Your task to perform on an android device: stop showing notifications on the lock screen Image 0: 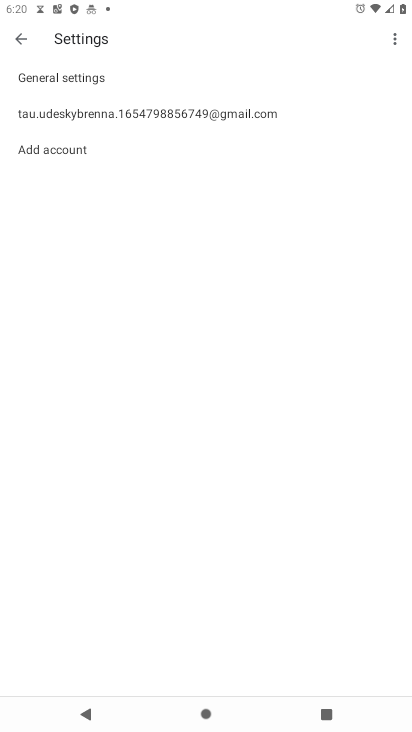
Step 0: press home button
Your task to perform on an android device: stop showing notifications on the lock screen Image 1: 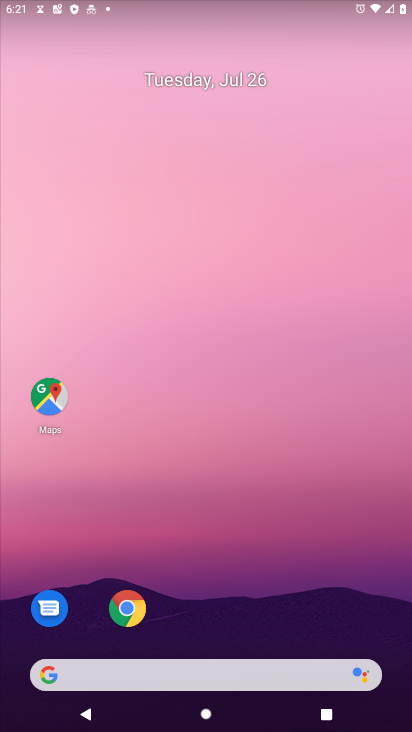
Step 1: drag from (197, 630) to (149, 356)
Your task to perform on an android device: stop showing notifications on the lock screen Image 2: 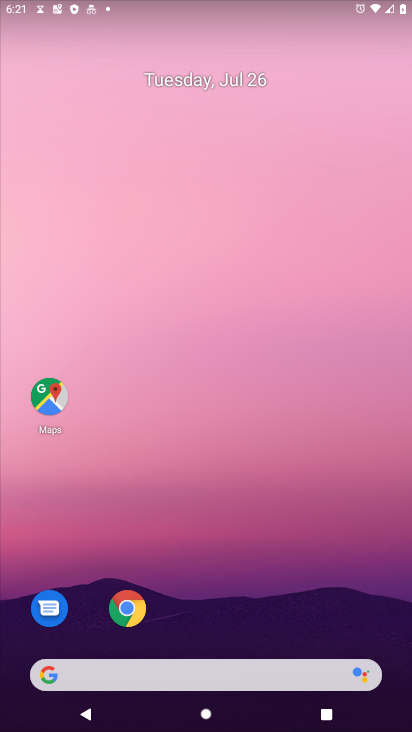
Step 2: click (301, 598)
Your task to perform on an android device: stop showing notifications on the lock screen Image 3: 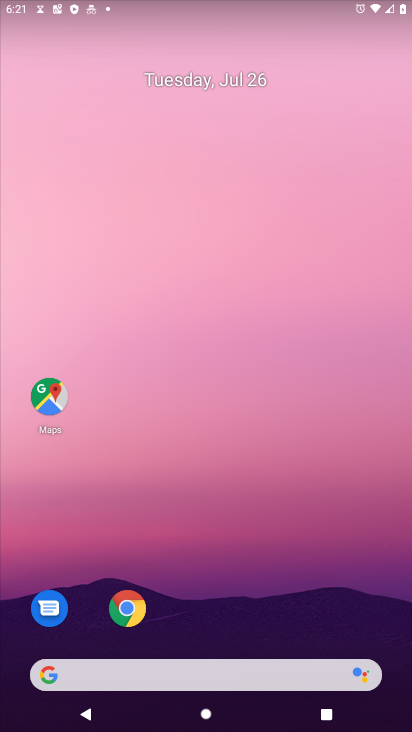
Step 3: drag from (286, 629) to (349, 134)
Your task to perform on an android device: stop showing notifications on the lock screen Image 4: 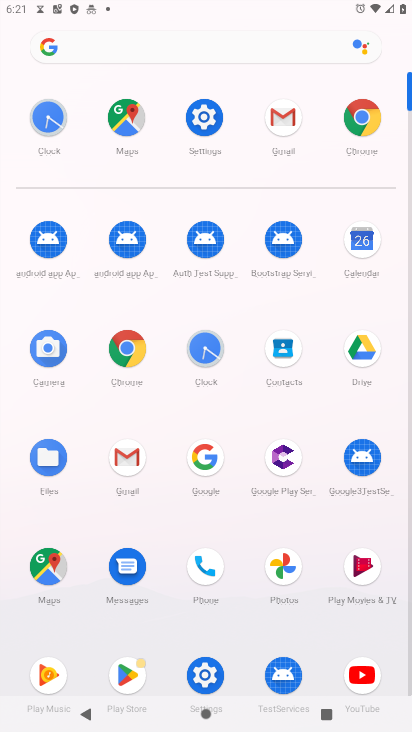
Step 4: click (224, 128)
Your task to perform on an android device: stop showing notifications on the lock screen Image 5: 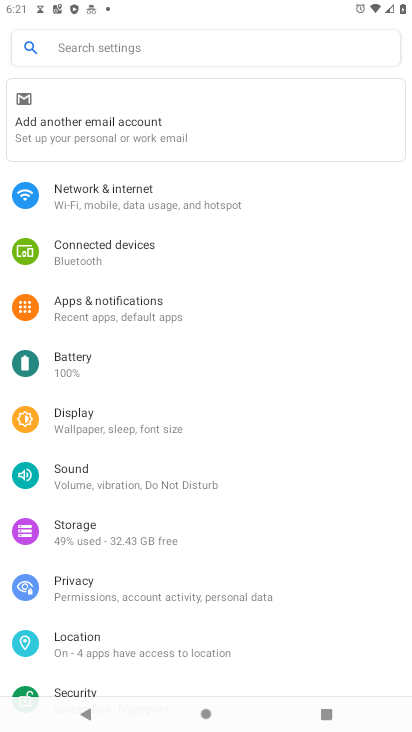
Step 5: click (89, 305)
Your task to perform on an android device: stop showing notifications on the lock screen Image 6: 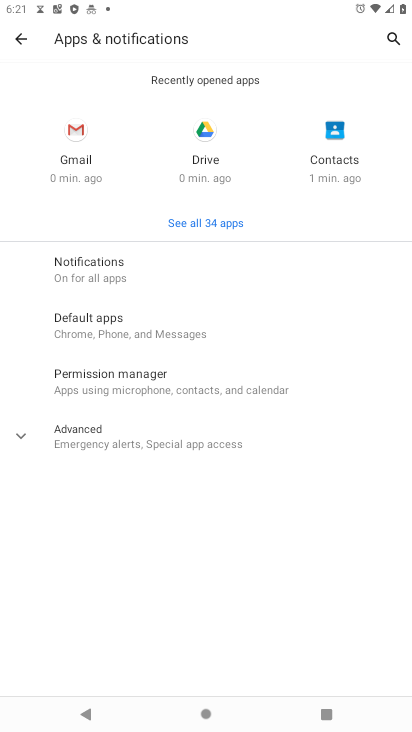
Step 6: click (94, 274)
Your task to perform on an android device: stop showing notifications on the lock screen Image 7: 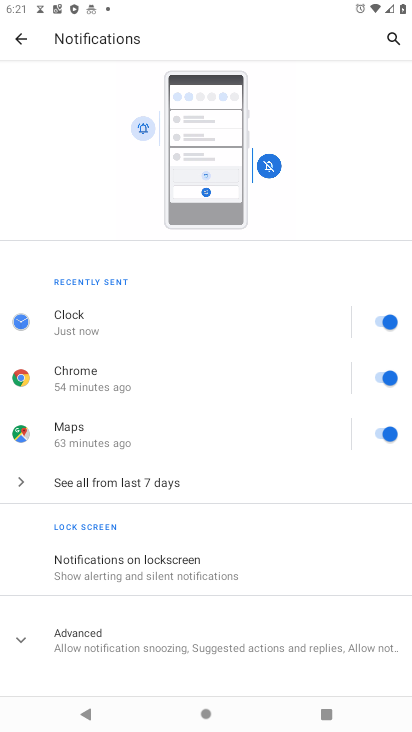
Step 7: click (109, 574)
Your task to perform on an android device: stop showing notifications on the lock screen Image 8: 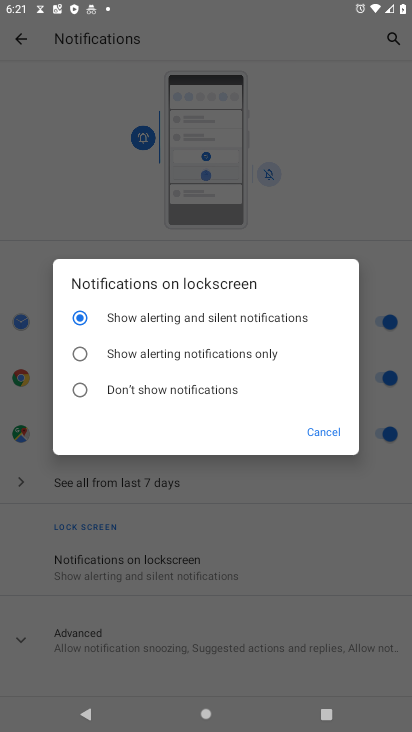
Step 8: click (82, 391)
Your task to perform on an android device: stop showing notifications on the lock screen Image 9: 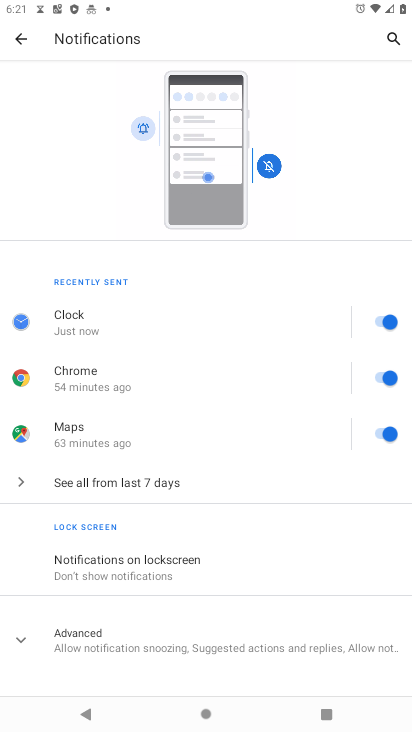
Step 9: task complete